Your task to perform on an android device: How much does the Samsung TV cost? Image 0: 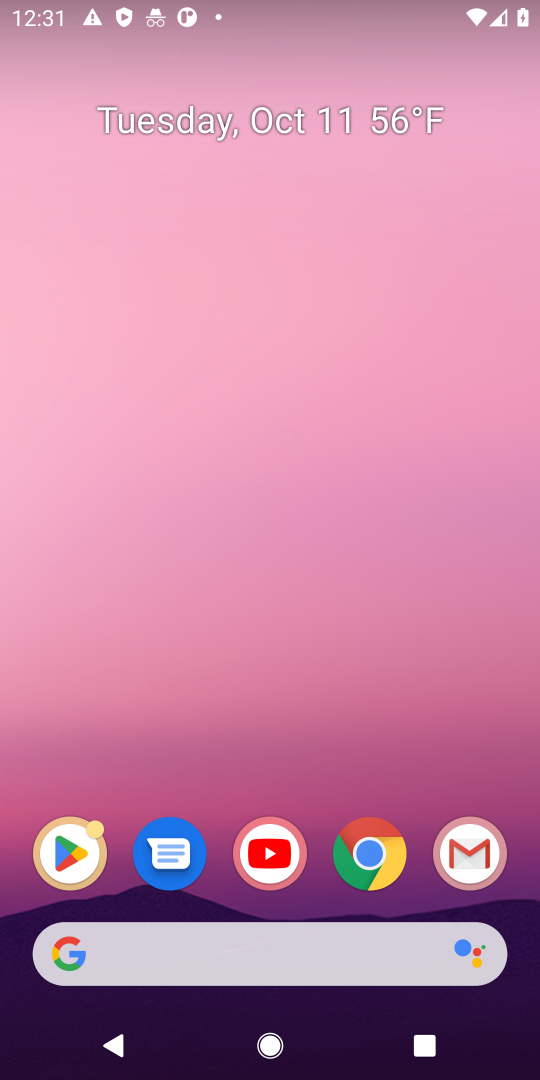
Step 0: drag from (207, 812) to (355, 36)
Your task to perform on an android device: How much does the Samsung TV cost? Image 1: 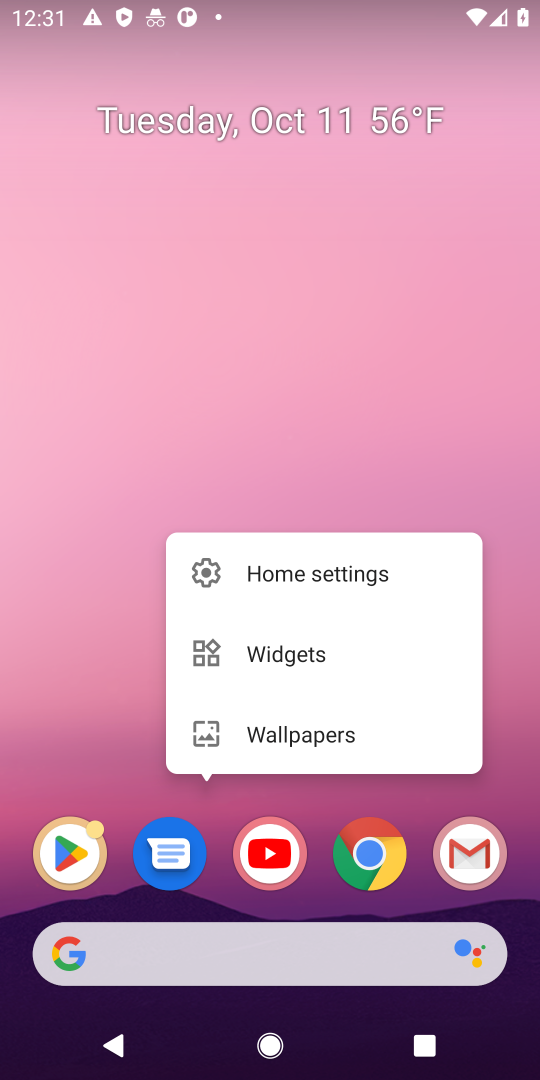
Step 1: click (340, 408)
Your task to perform on an android device: How much does the Samsung TV cost? Image 2: 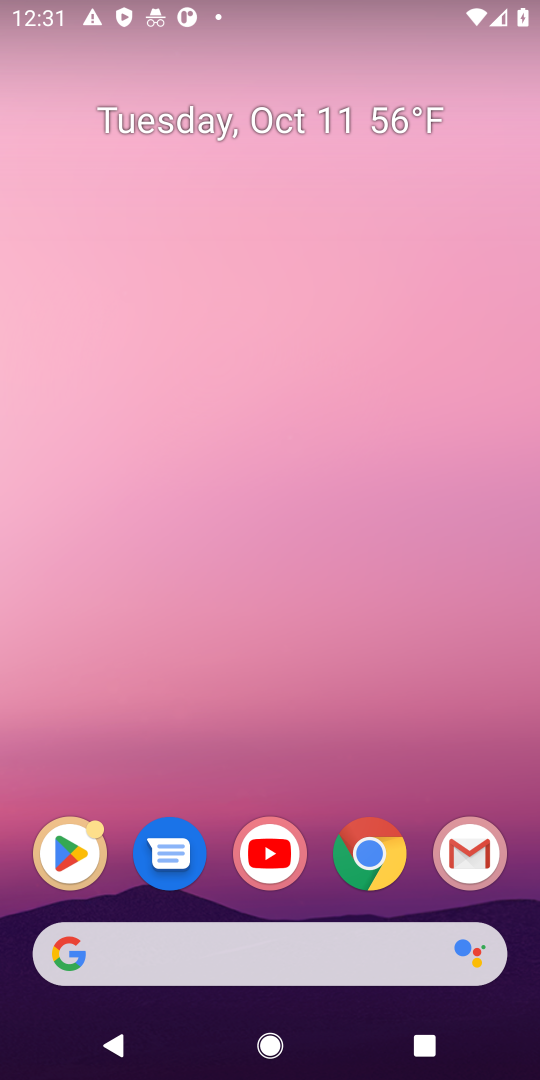
Step 2: drag from (311, 820) to (169, 3)
Your task to perform on an android device: How much does the Samsung TV cost? Image 3: 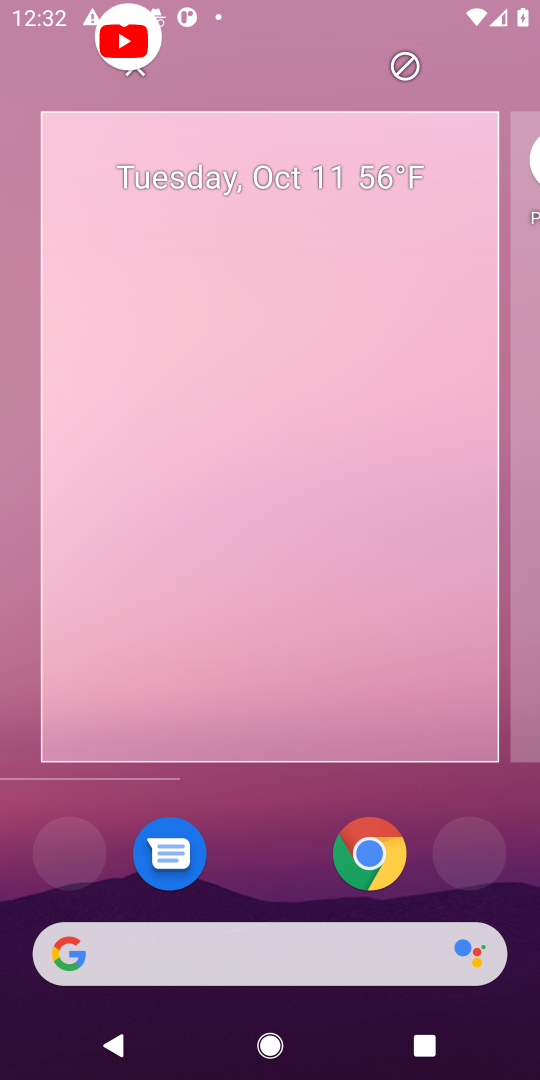
Step 3: click (317, 322)
Your task to perform on an android device: How much does the Samsung TV cost? Image 4: 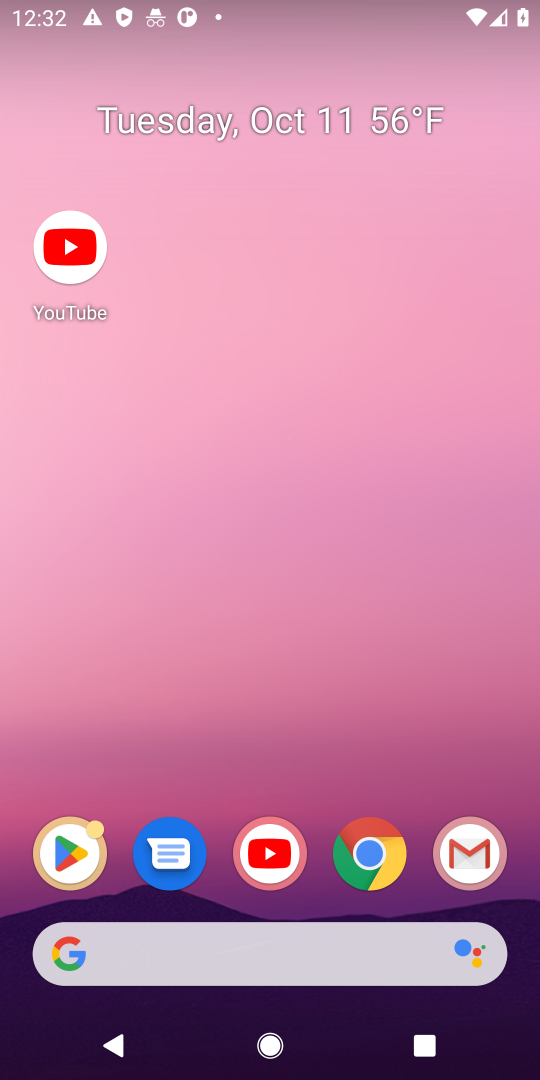
Step 4: drag from (370, 773) to (337, 40)
Your task to perform on an android device: How much does the Samsung TV cost? Image 5: 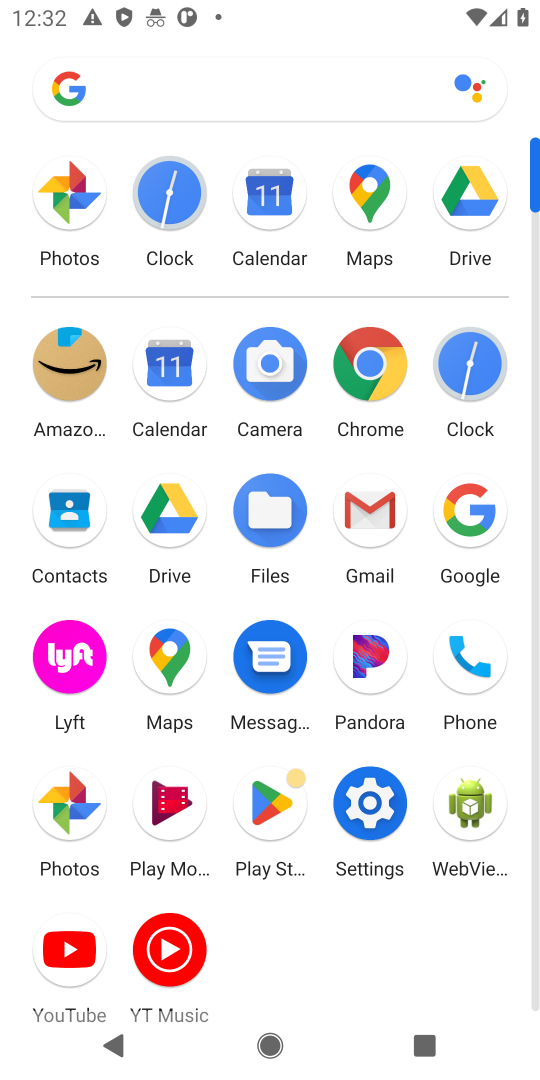
Step 5: click (369, 355)
Your task to perform on an android device: How much does the Samsung TV cost? Image 6: 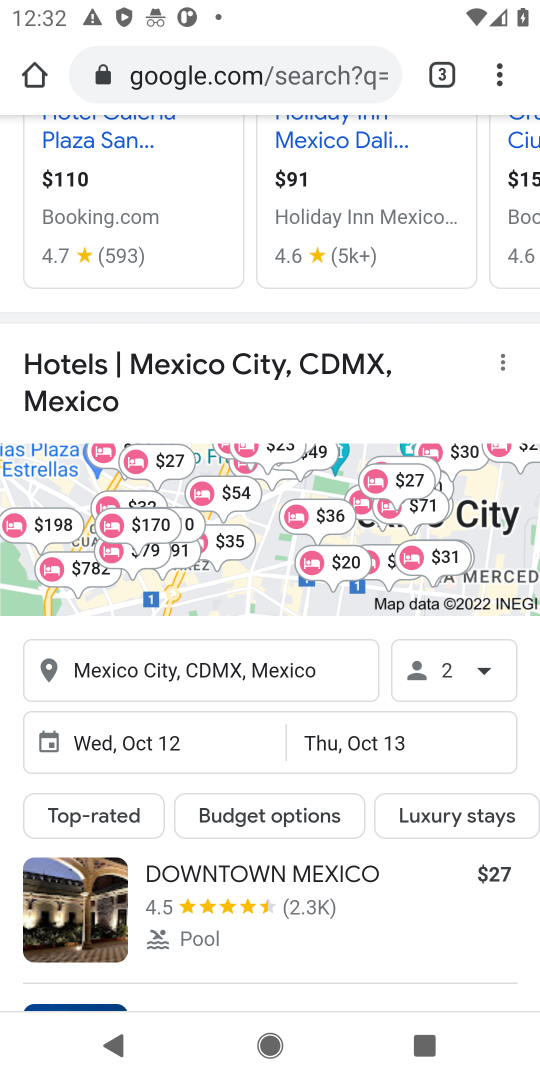
Step 6: drag from (375, 181) to (373, 939)
Your task to perform on an android device: How much does the Samsung TV cost? Image 7: 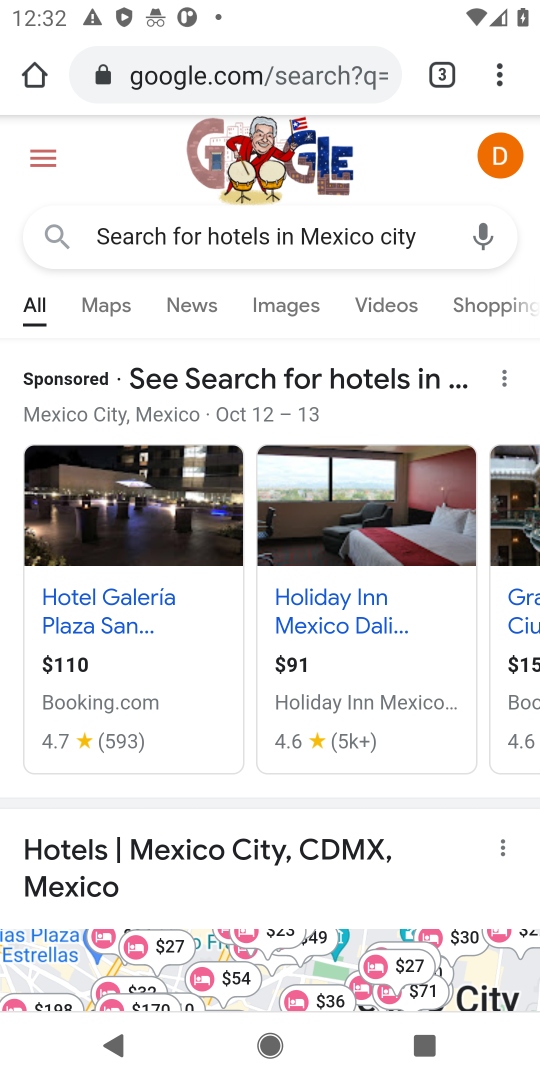
Step 7: click (186, 72)
Your task to perform on an android device: How much does the Samsung TV cost? Image 8: 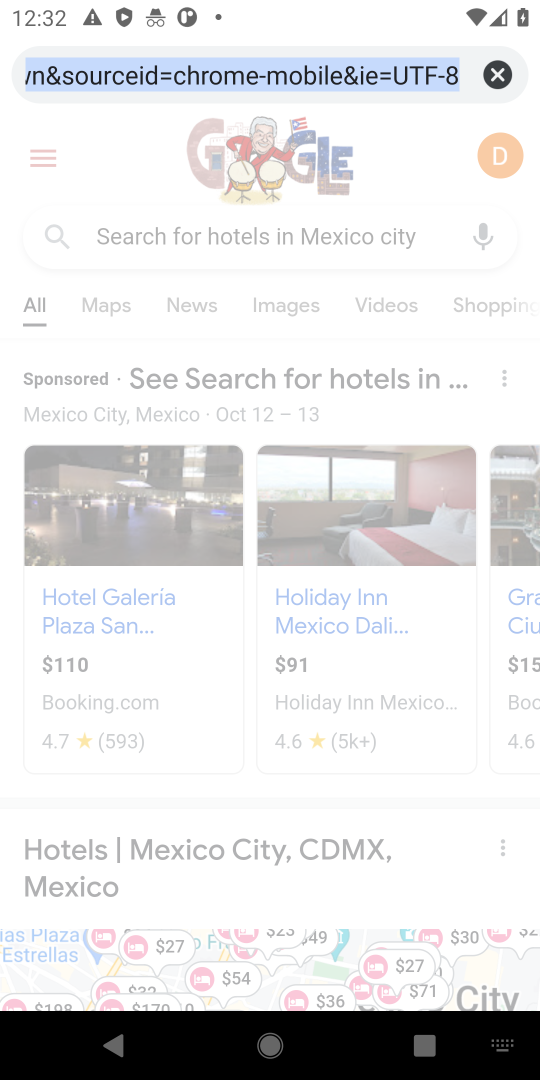
Step 8: click (490, 59)
Your task to perform on an android device: How much does the Samsung TV cost? Image 9: 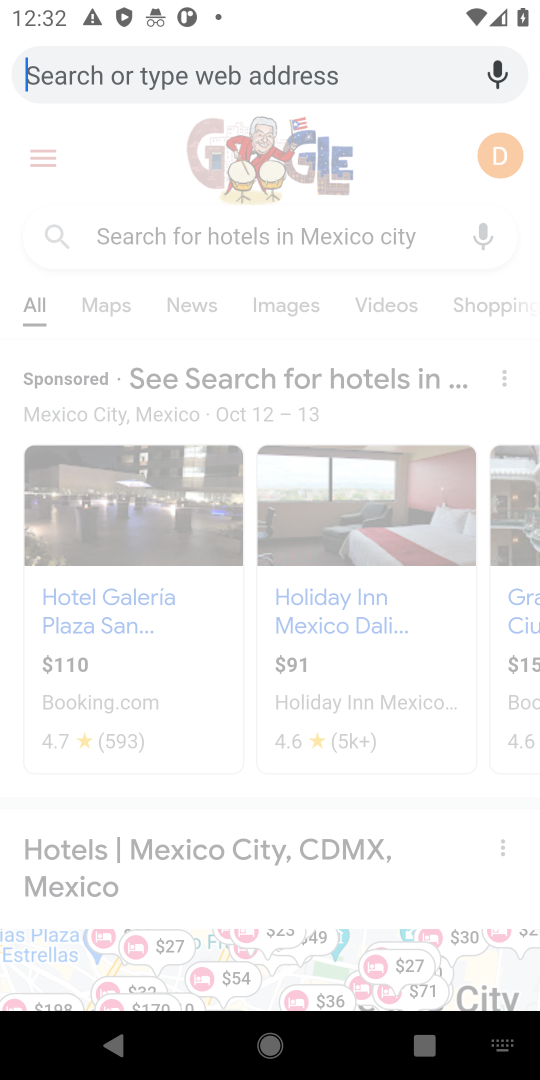
Step 9: type "How much does the Samsung TV cost?"
Your task to perform on an android device: How much does the Samsung TV cost? Image 10: 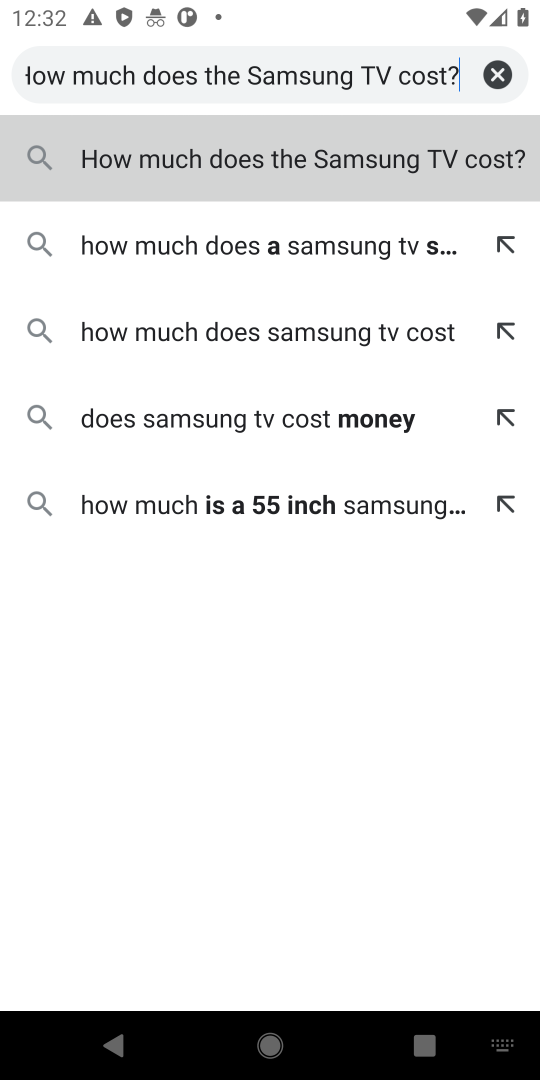
Step 10: click (480, 140)
Your task to perform on an android device: How much does the Samsung TV cost? Image 11: 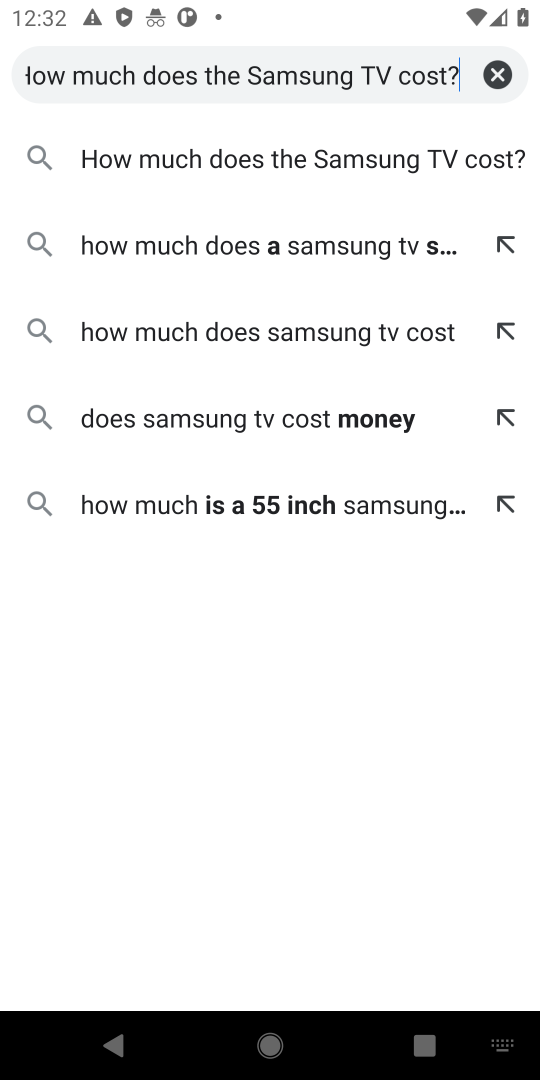
Step 11: click (455, 155)
Your task to perform on an android device: How much does the Samsung TV cost? Image 12: 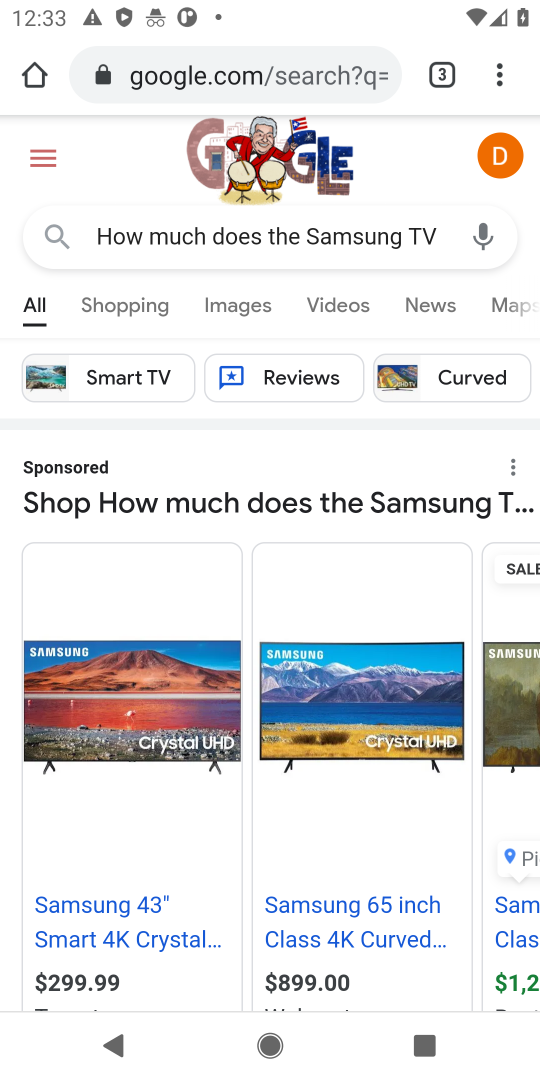
Step 12: task complete